Your task to perform on an android device: turn on location history Image 0: 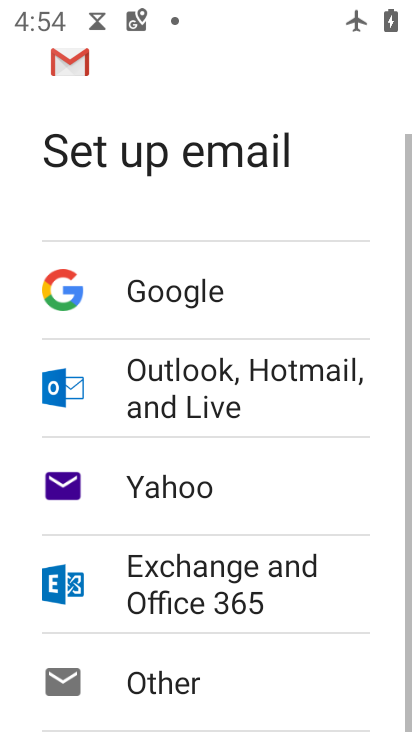
Step 0: drag from (350, 551) to (388, 4)
Your task to perform on an android device: turn on location history Image 1: 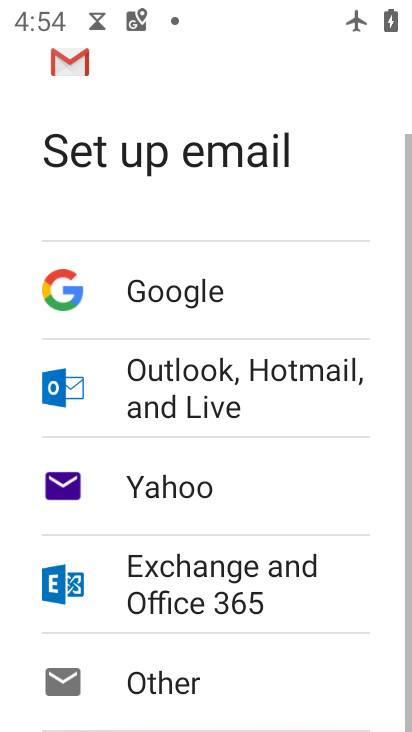
Step 1: press home button
Your task to perform on an android device: turn on location history Image 2: 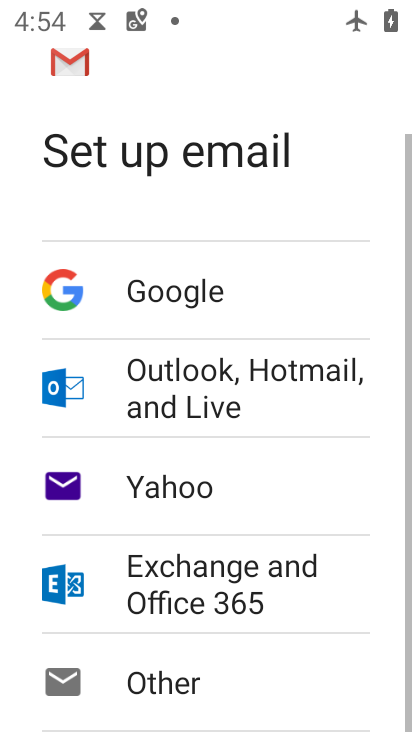
Step 2: drag from (388, 4) to (411, 384)
Your task to perform on an android device: turn on location history Image 3: 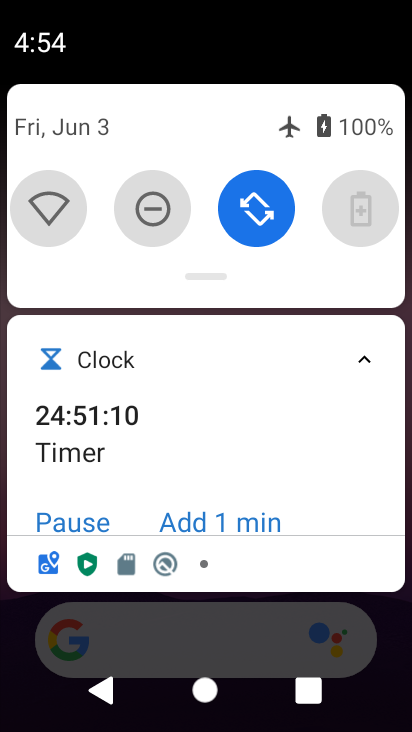
Step 3: drag from (289, 599) to (290, 4)
Your task to perform on an android device: turn on location history Image 4: 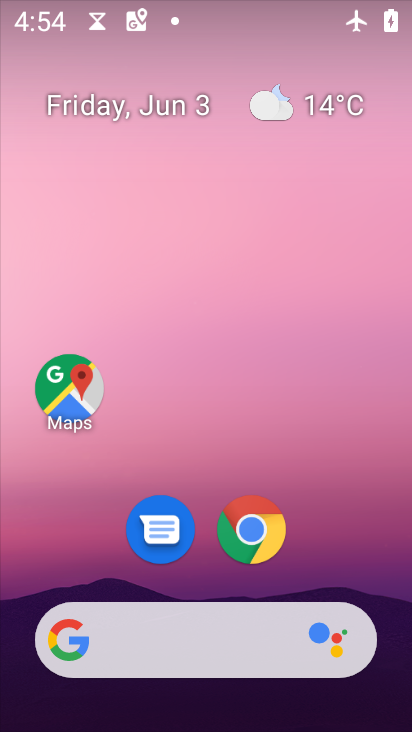
Step 4: drag from (345, 568) to (350, 0)
Your task to perform on an android device: turn on location history Image 5: 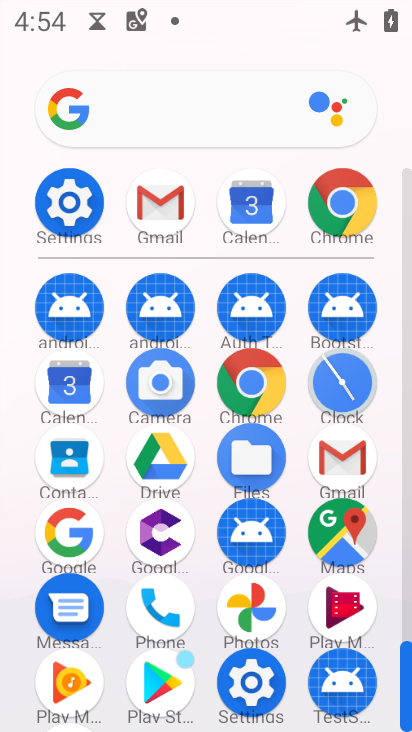
Step 5: click (80, 210)
Your task to perform on an android device: turn on location history Image 6: 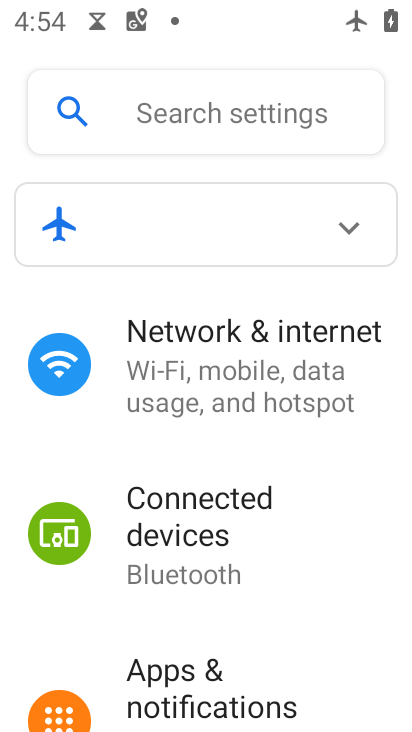
Step 6: drag from (206, 572) to (172, 129)
Your task to perform on an android device: turn on location history Image 7: 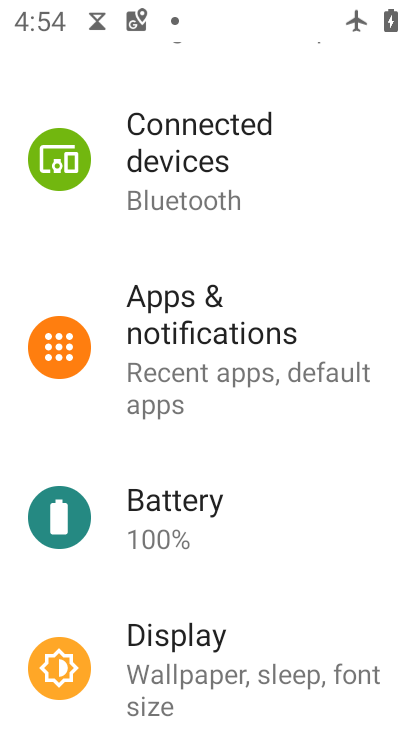
Step 7: drag from (215, 555) to (248, 123)
Your task to perform on an android device: turn on location history Image 8: 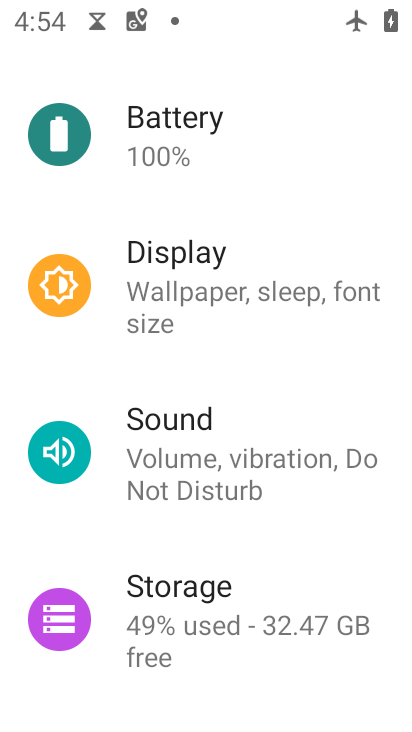
Step 8: drag from (248, 546) to (287, 71)
Your task to perform on an android device: turn on location history Image 9: 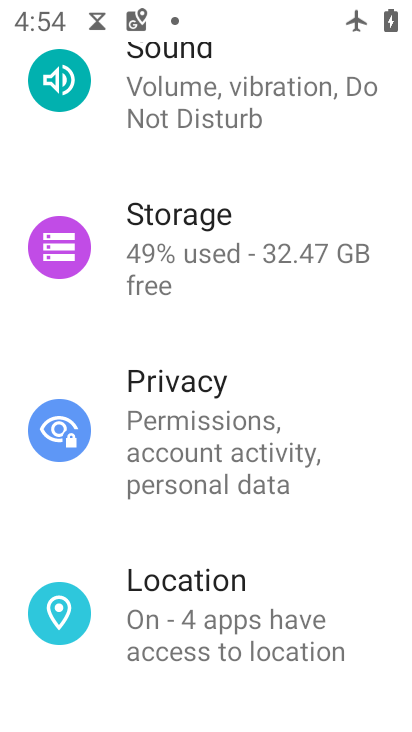
Step 9: click (243, 582)
Your task to perform on an android device: turn on location history Image 10: 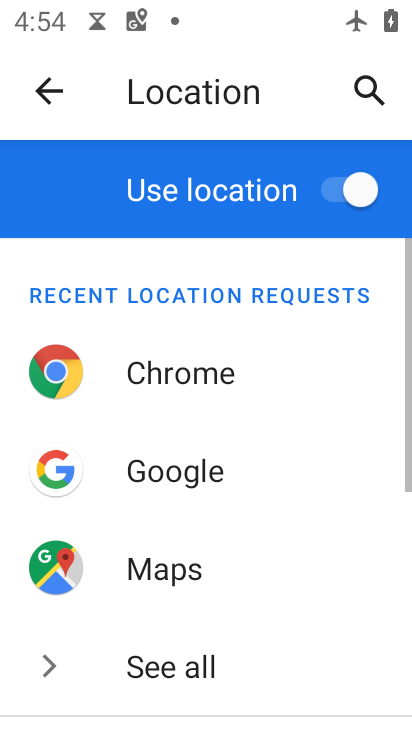
Step 10: drag from (243, 582) to (275, 135)
Your task to perform on an android device: turn on location history Image 11: 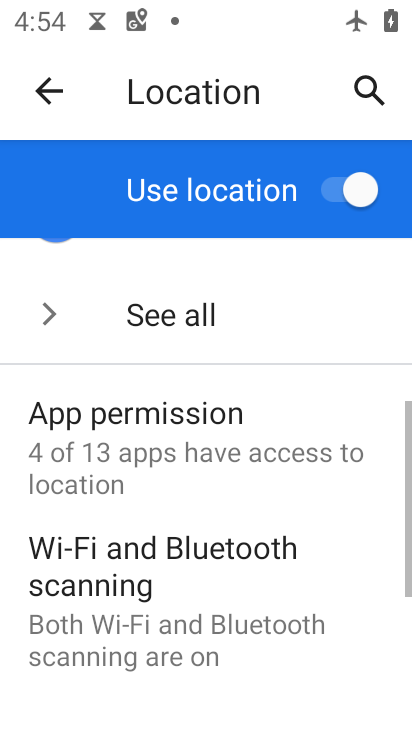
Step 11: drag from (153, 649) to (171, 250)
Your task to perform on an android device: turn on location history Image 12: 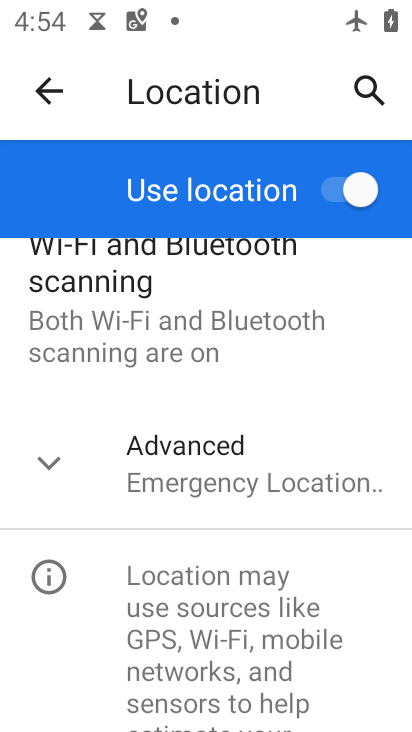
Step 12: click (161, 480)
Your task to perform on an android device: turn on location history Image 13: 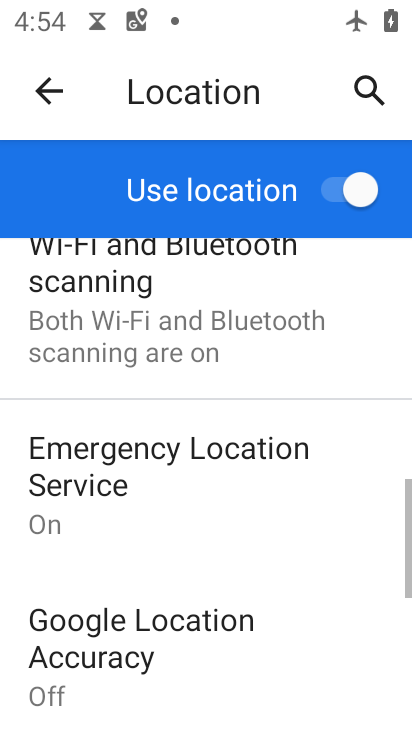
Step 13: drag from (202, 631) to (299, 207)
Your task to perform on an android device: turn on location history Image 14: 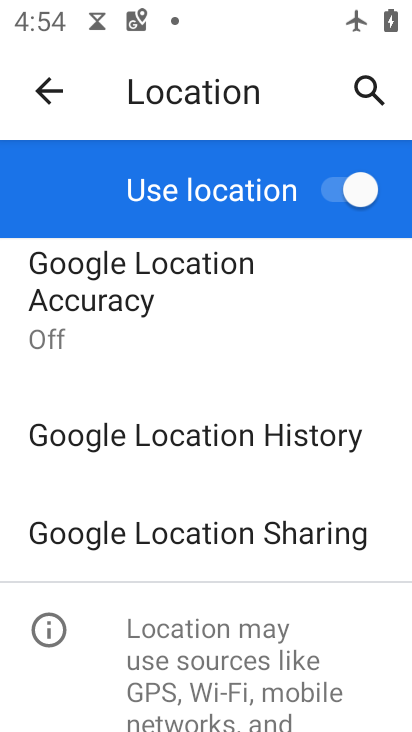
Step 14: click (245, 440)
Your task to perform on an android device: turn on location history Image 15: 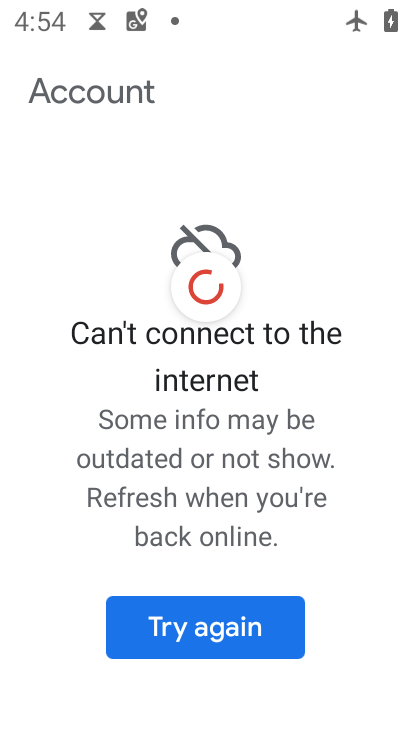
Step 15: task complete